Your task to perform on an android device: Search for pizza restaurants on Maps Image 0: 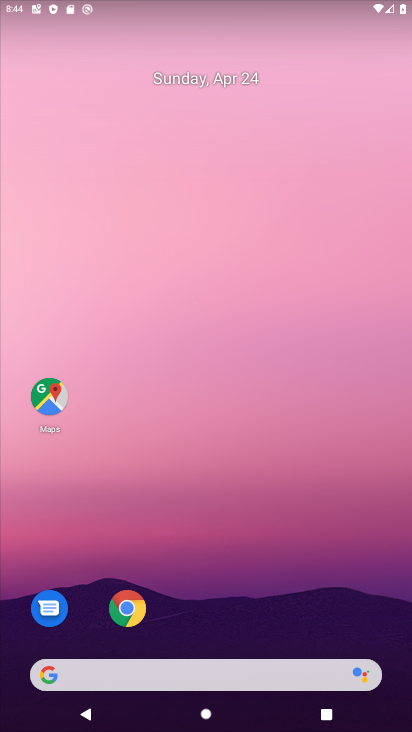
Step 0: drag from (304, 688) to (317, 116)
Your task to perform on an android device: Search for pizza restaurants on Maps Image 1: 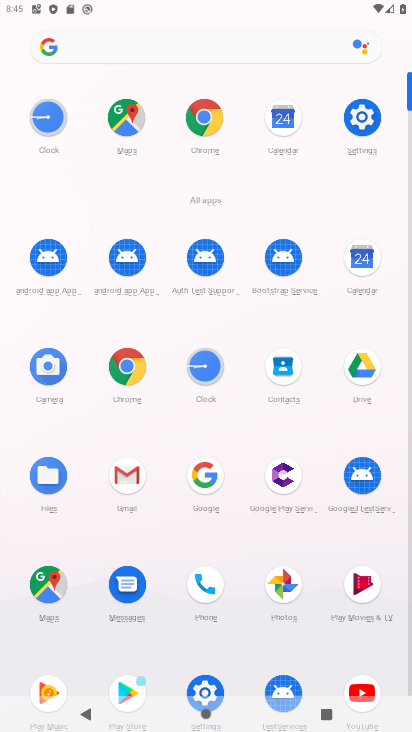
Step 1: click (128, 120)
Your task to perform on an android device: Search for pizza restaurants on Maps Image 2: 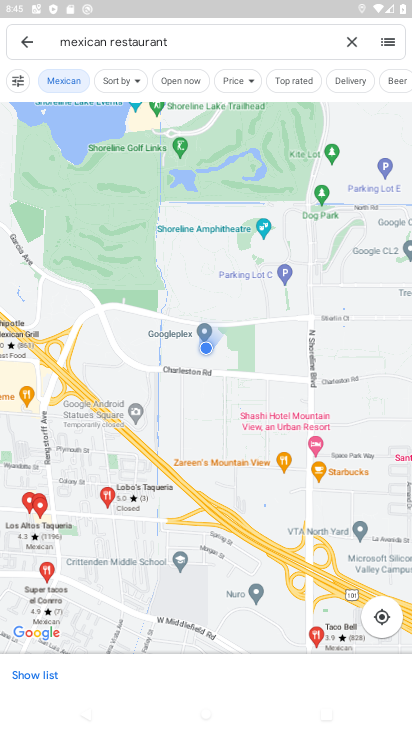
Step 2: click (361, 41)
Your task to perform on an android device: Search for pizza restaurants on Maps Image 3: 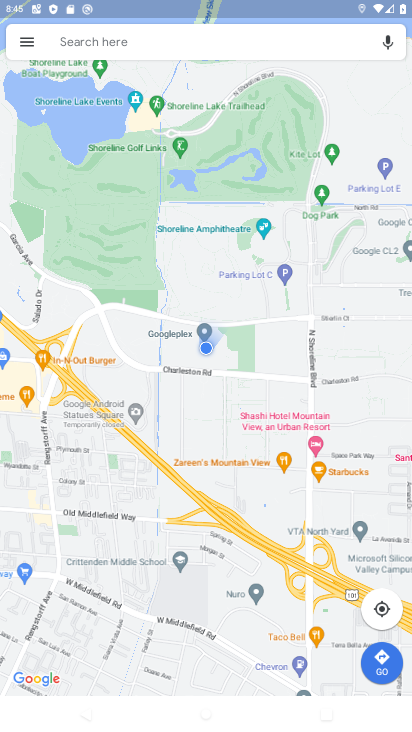
Step 3: click (183, 45)
Your task to perform on an android device: Search for pizza restaurants on Maps Image 4: 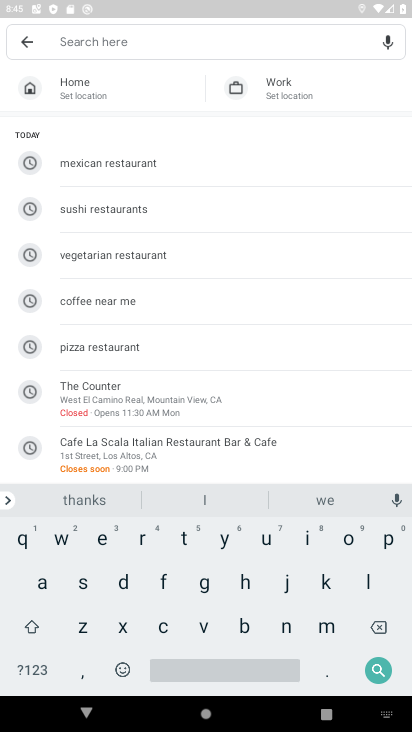
Step 4: click (104, 346)
Your task to perform on an android device: Search for pizza restaurants on Maps Image 5: 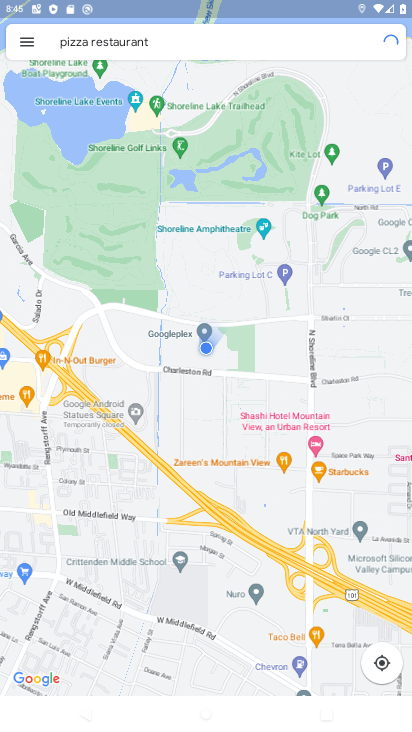
Step 5: task complete